Your task to perform on an android device: change text size in settings app Image 0: 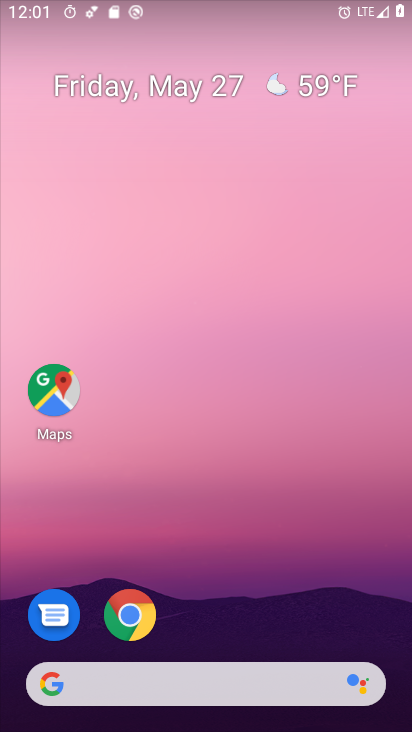
Step 0: drag from (260, 708) to (131, 130)
Your task to perform on an android device: change text size in settings app Image 1: 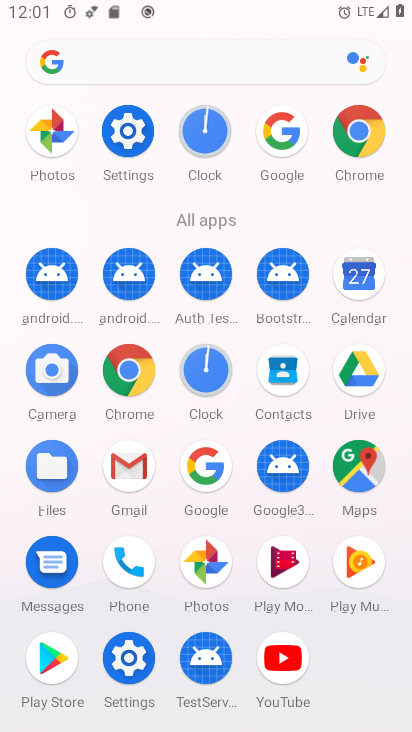
Step 1: click (132, 130)
Your task to perform on an android device: change text size in settings app Image 2: 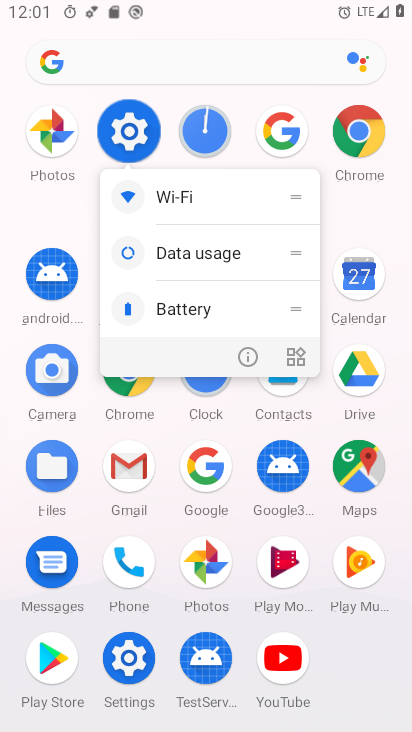
Step 2: click (132, 130)
Your task to perform on an android device: change text size in settings app Image 3: 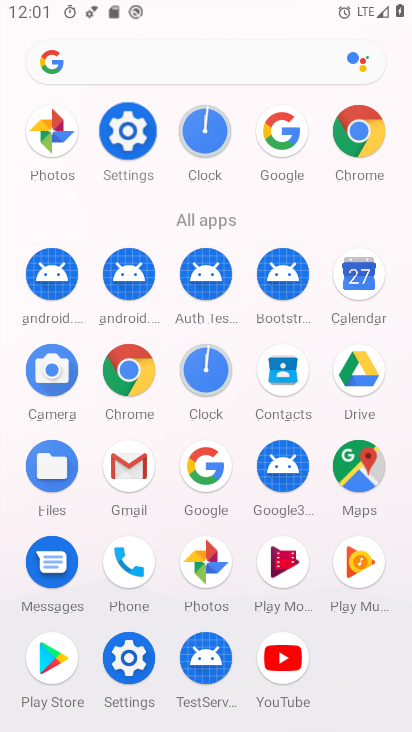
Step 3: click (132, 129)
Your task to perform on an android device: change text size in settings app Image 4: 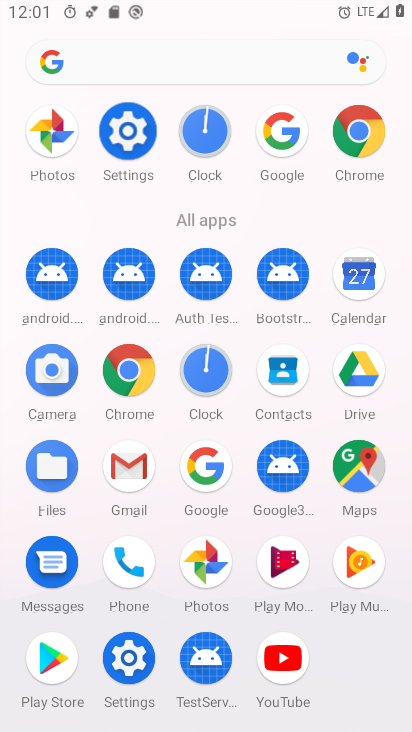
Step 4: click (132, 129)
Your task to perform on an android device: change text size in settings app Image 5: 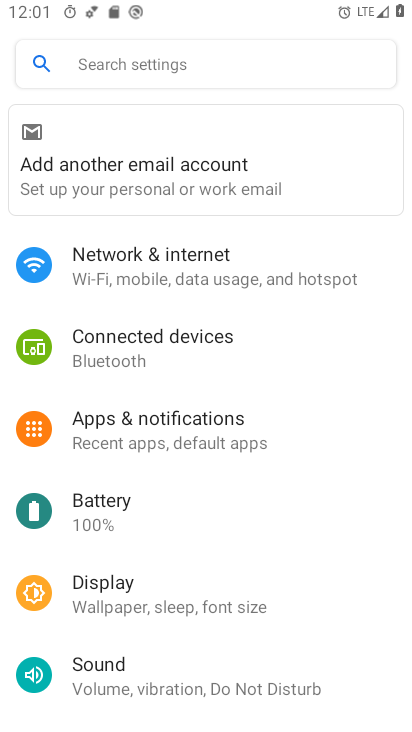
Step 5: drag from (123, 551) to (85, 278)
Your task to perform on an android device: change text size in settings app Image 6: 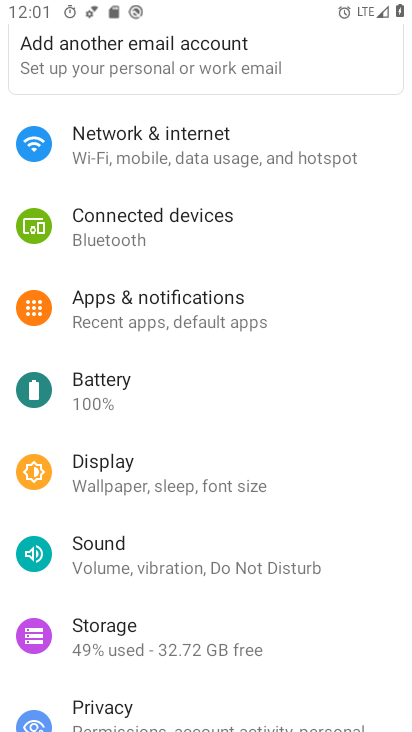
Step 6: drag from (162, 555) to (132, 265)
Your task to perform on an android device: change text size in settings app Image 7: 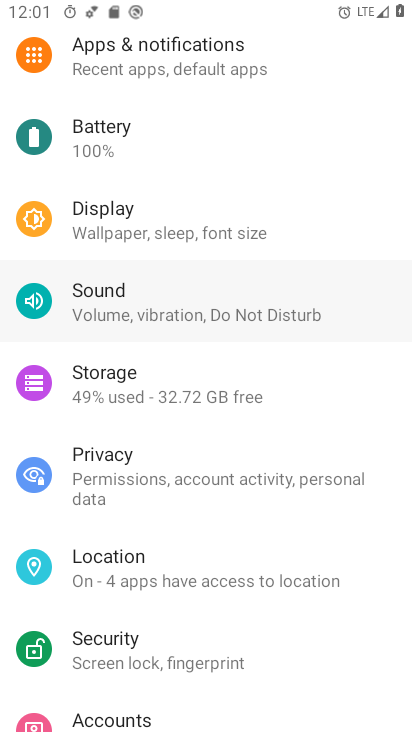
Step 7: drag from (159, 513) to (113, 240)
Your task to perform on an android device: change text size in settings app Image 8: 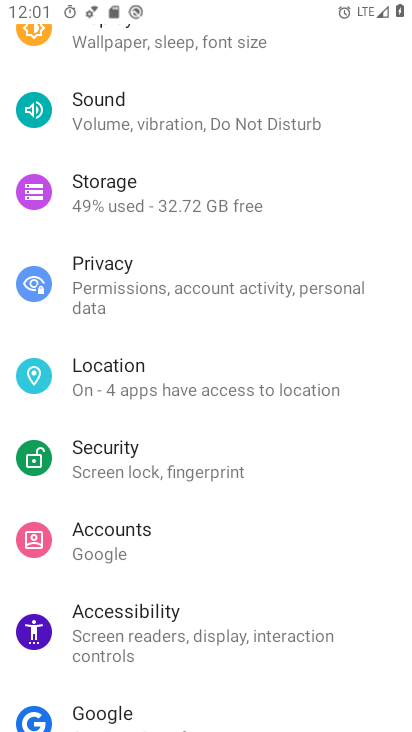
Step 8: drag from (121, 430) to (114, 146)
Your task to perform on an android device: change text size in settings app Image 9: 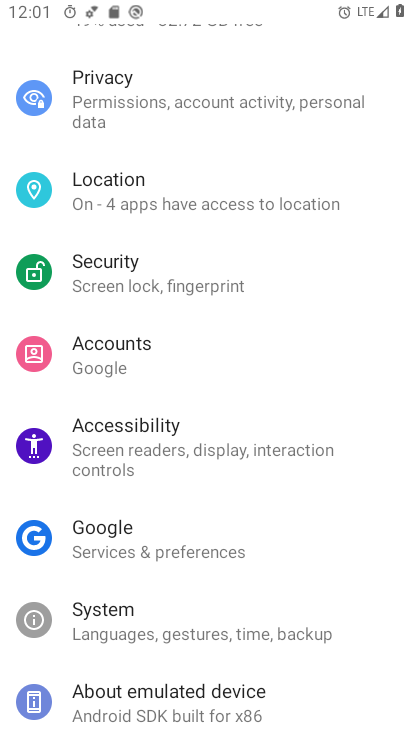
Step 9: drag from (137, 278) to (119, 140)
Your task to perform on an android device: change text size in settings app Image 10: 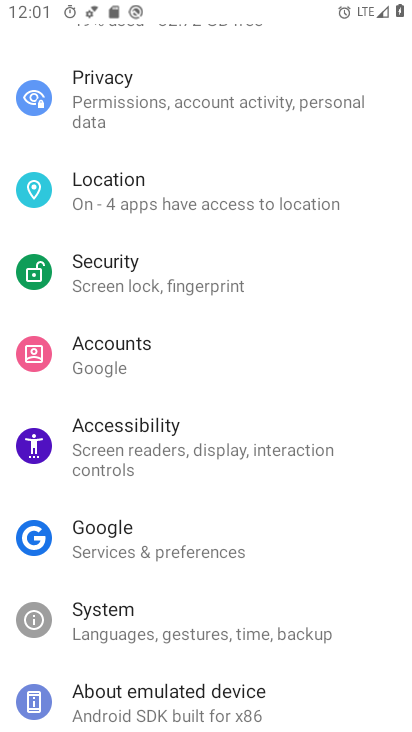
Step 10: drag from (127, 216) to (206, 483)
Your task to perform on an android device: change text size in settings app Image 11: 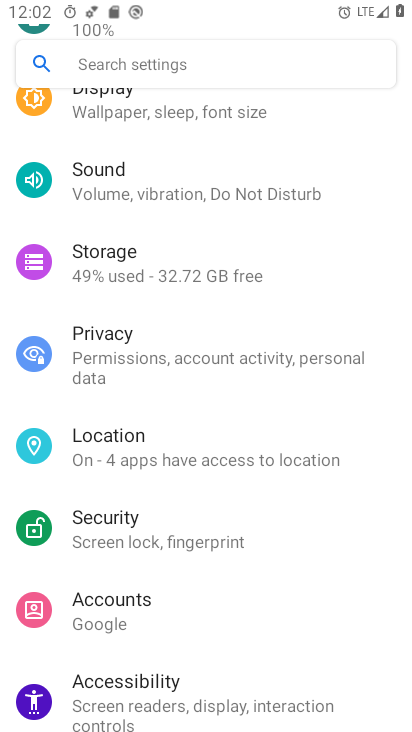
Step 11: drag from (130, 206) to (183, 641)
Your task to perform on an android device: change text size in settings app Image 12: 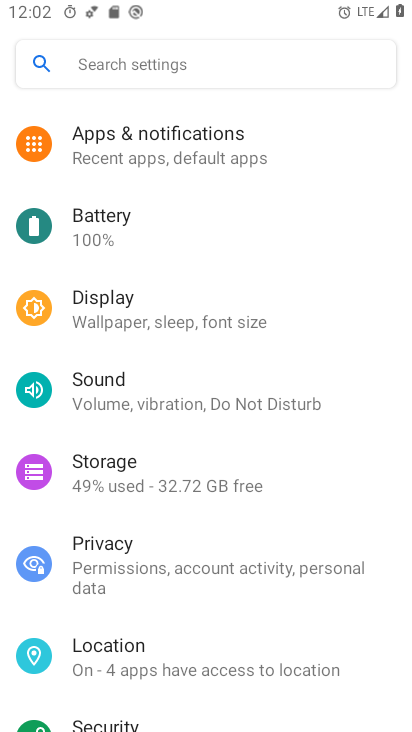
Step 12: click (89, 320)
Your task to perform on an android device: change text size in settings app Image 13: 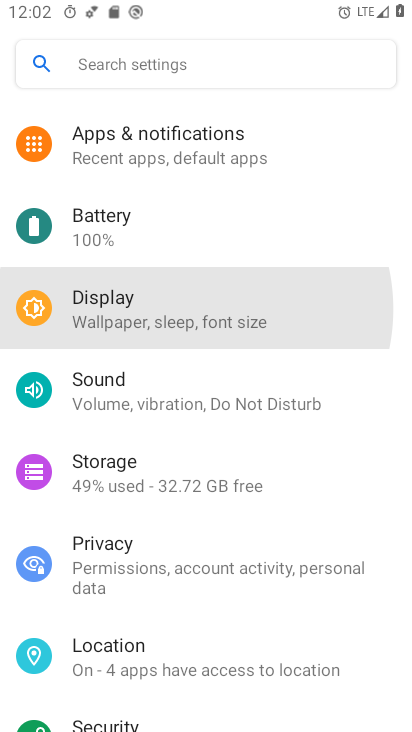
Step 13: click (109, 307)
Your task to perform on an android device: change text size in settings app Image 14: 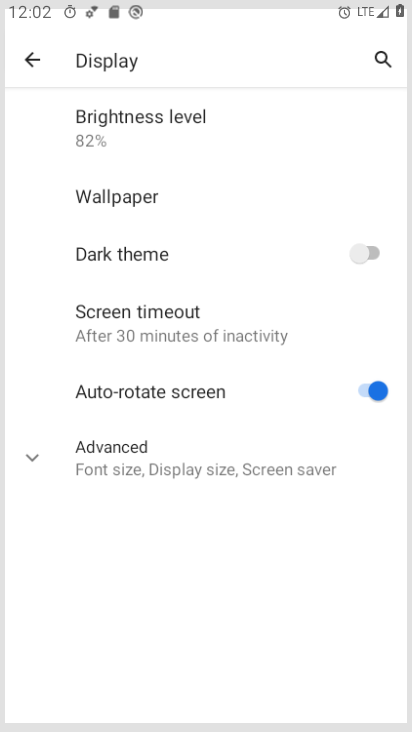
Step 14: click (112, 305)
Your task to perform on an android device: change text size in settings app Image 15: 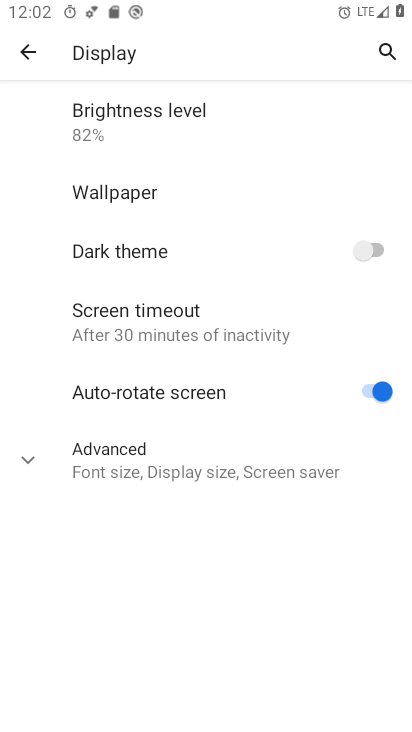
Step 15: click (114, 303)
Your task to perform on an android device: change text size in settings app Image 16: 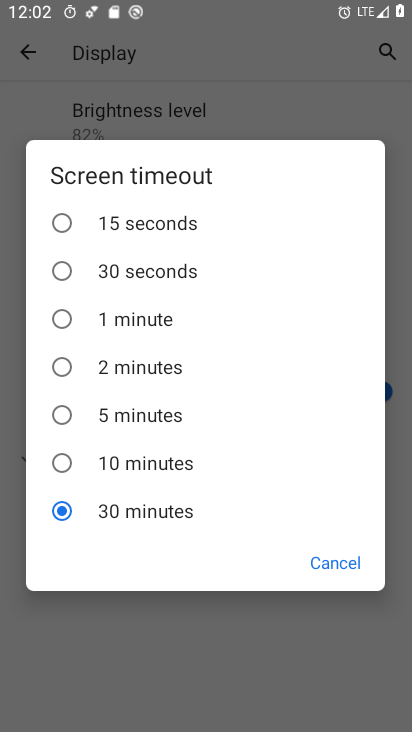
Step 16: click (344, 553)
Your task to perform on an android device: change text size in settings app Image 17: 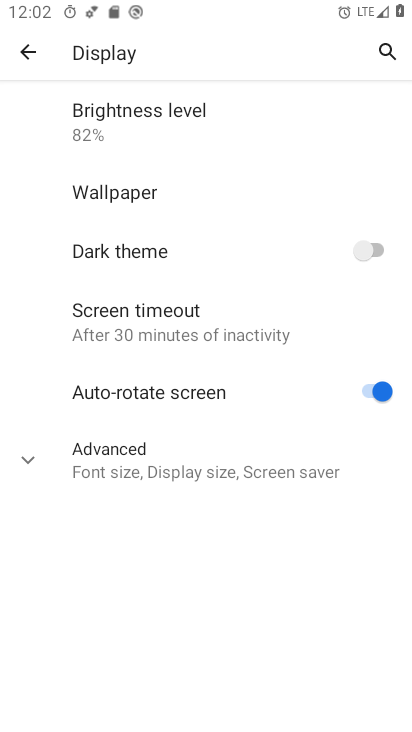
Step 17: click (128, 445)
Your task to perform on an android device: change text size in settings app Image 18: 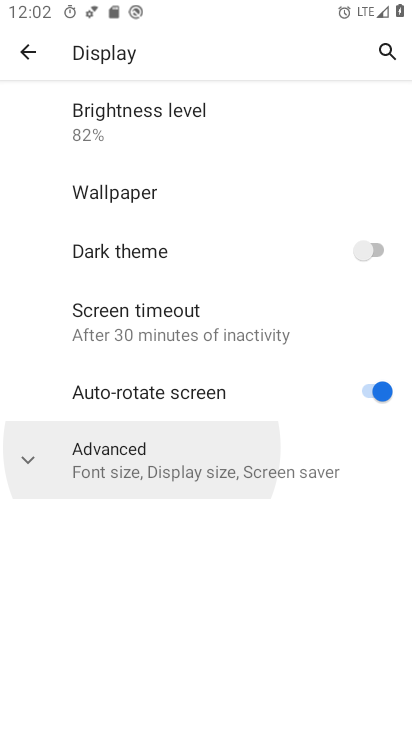
Step 18: click (128, 445)
Your task to perform on an android device: change text size in settings app Image 19: 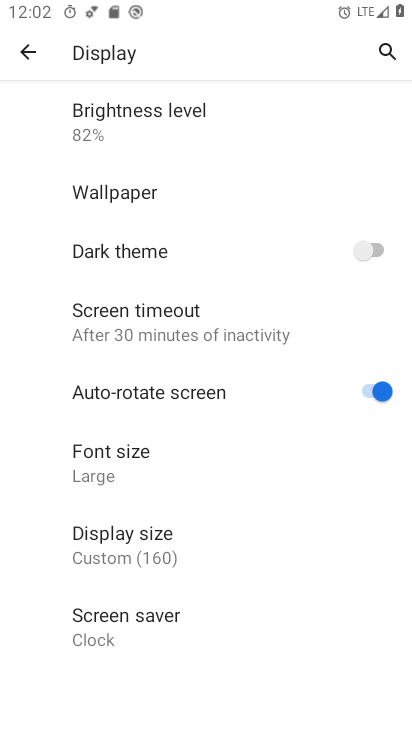
Step 19: click (99, 458)
Your task to perform on an android device: change text size in settings app Image 20: 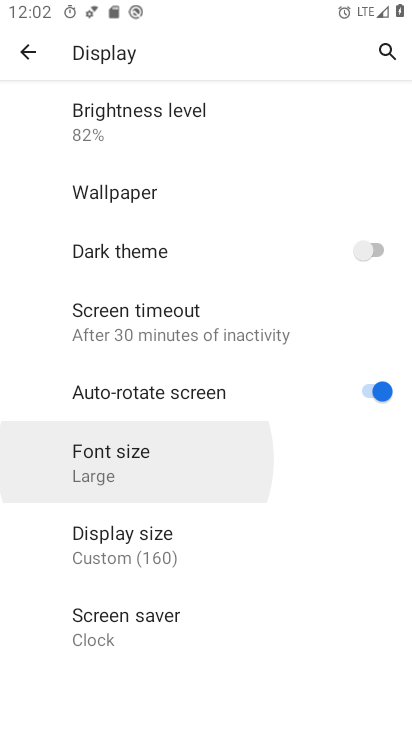
Step 20: click (100, 457)
Your task to perform on an android device: change text size in settings app Image 21: 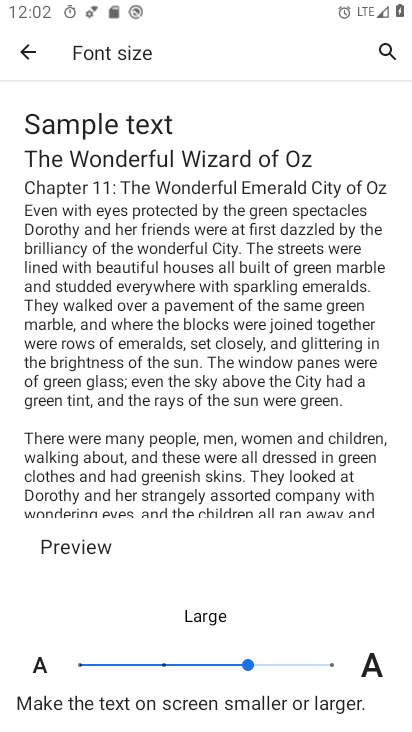
Step 21: click (154, 668)
Your task to perform on an android device: change text size in settings app Image 22: 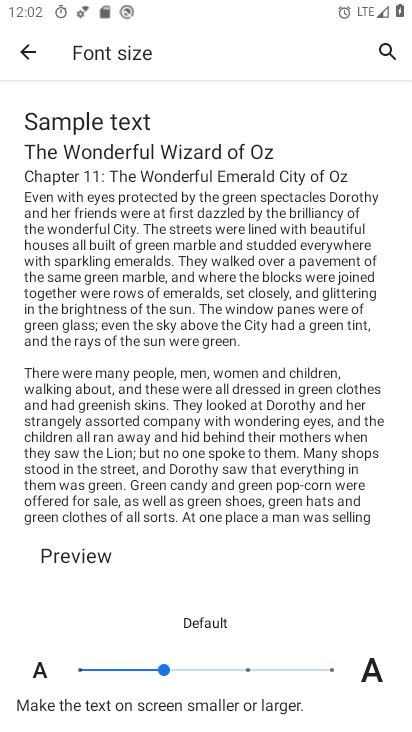
Step 22: task complete